Your task to perform on an android device: Open Youtube and go to "Your channel" Image 0: 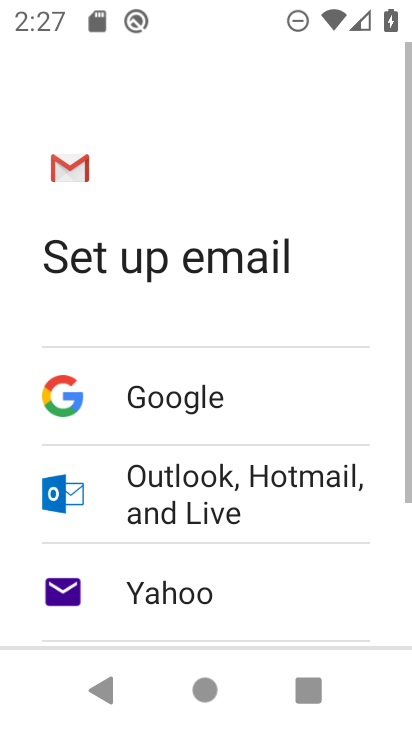
Step 0: press home button
Your task to perform on an android device: Open Youtube and go to "Your channel" Image 1: 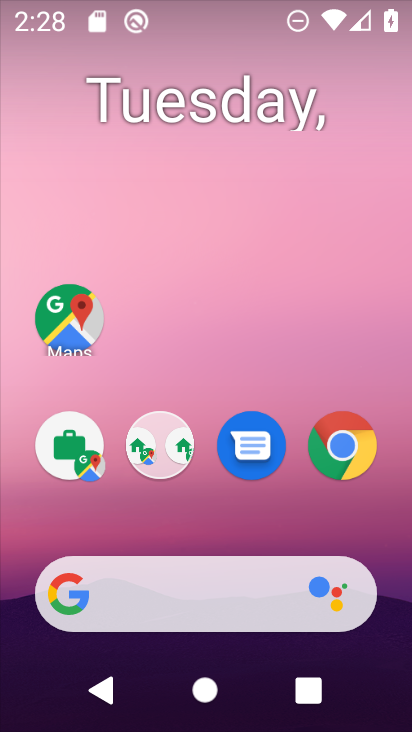
Step 1: drag from (275, 522) to (275, 202)
Your task to perform on an android device: Open Youtube and go to "Your channel" Image 2: 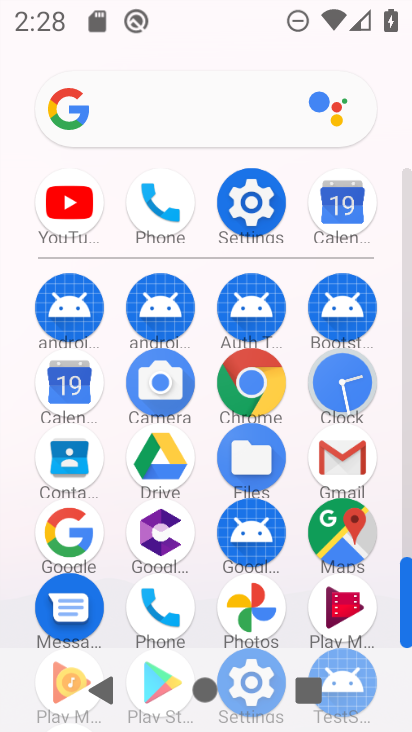
Step 2: click (80, 231)
Your task to perform on an android device: Open Youtube and go to "Your channel" Image 3: 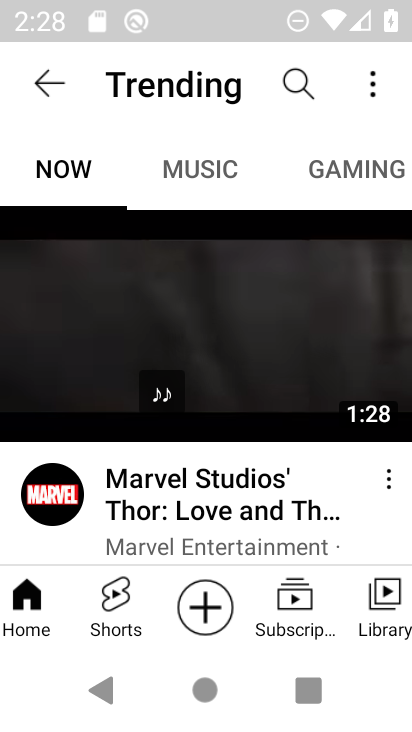
Step 3: click (385, 617)
Your task to perform on an android device: Open Youtube and go to "Your channel" Image 4: 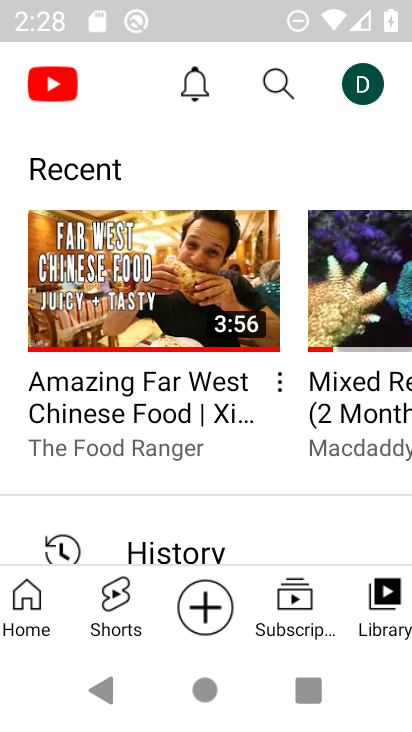
Step 4: click (356, 103)
Your task to perform on an android device: Open Youtube and go to "Your channel" Image 5: 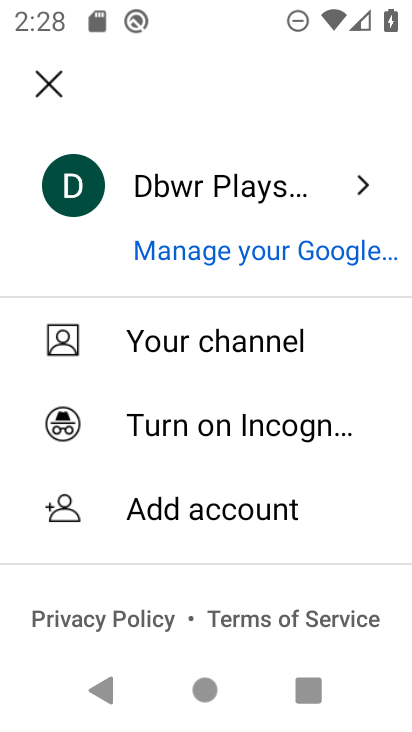
Step 5: click (235, 351)
Your task to perform on an android device: Open Youtube and go to "Your channel" Image 6: 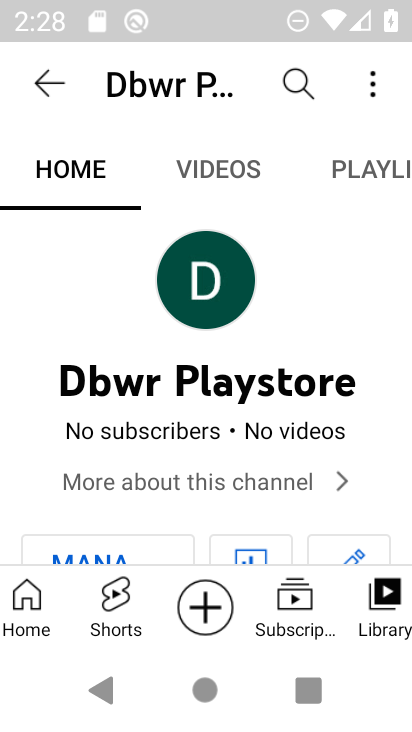
Step 6: task complete